Your task to perform on an android device: Search for Italian restaurants on Maps Image 0: 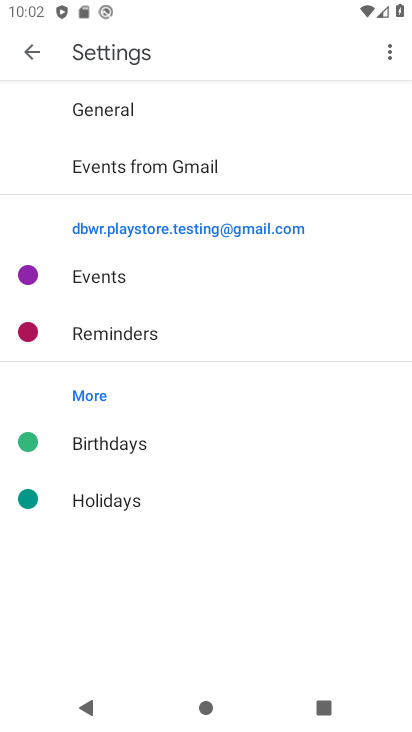
Step 0: press back button
Your task to perform on an android device: Search for Italian restaurants on Maps Image 1: 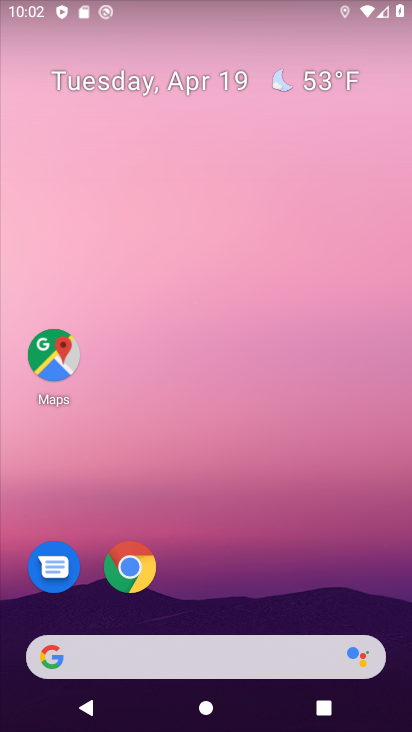
Step 1: click (49, 365)
Your task to perform on an android device: Search for Italian restaurants on Maps Image 2: 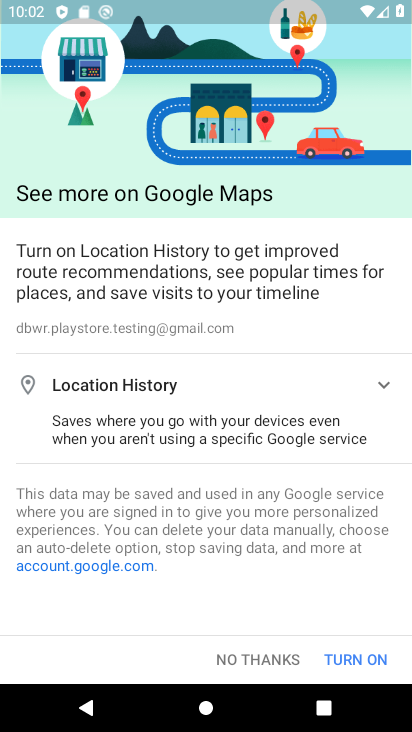
Step 2: click (279, 661)
Your task to perform on an android device: Search for Italian restaurants on Maps Image 3: 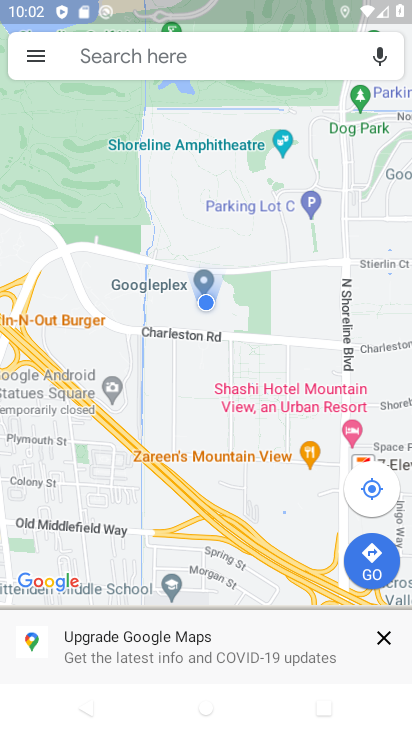
Step 3: click (224, 64)
Your task to perform on an android device: Search for Italian restaurants on Maps Image 4: 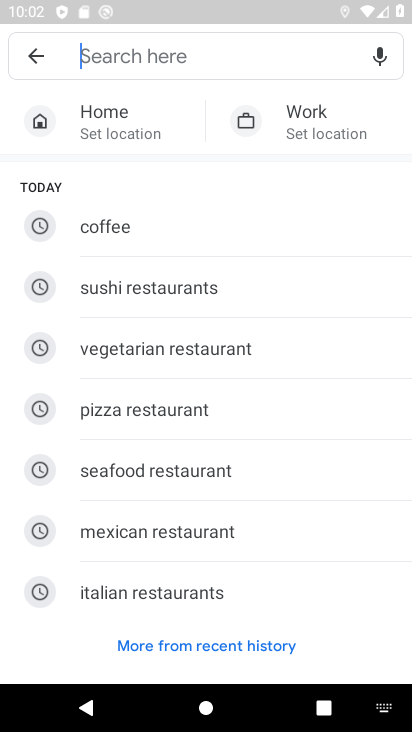
Step 4: click (371, 580)
Your task to perform on an android device: Search for Italian restaurants on Maps Image 5: 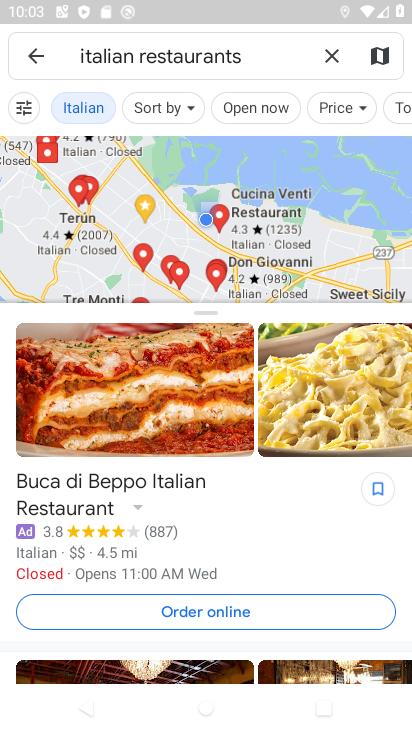
Step 5: task complete